Your task to perform on an android device: empty trash in the gmail app Image 0: 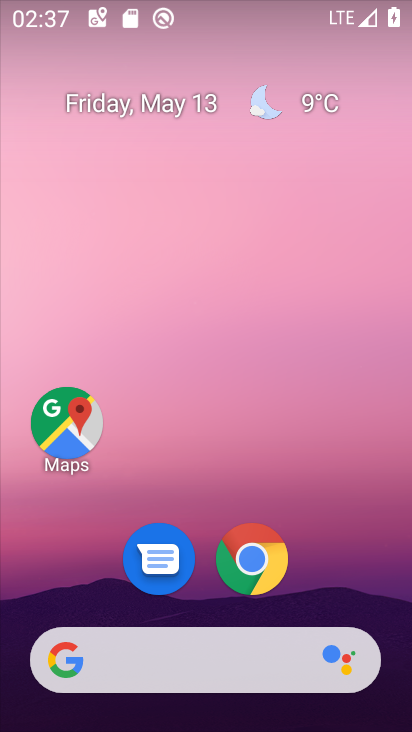
Step 0: drag from (404, 493) to (381, 260)
Your task to perform on an android device: empty trash in the gmail app Image 1: 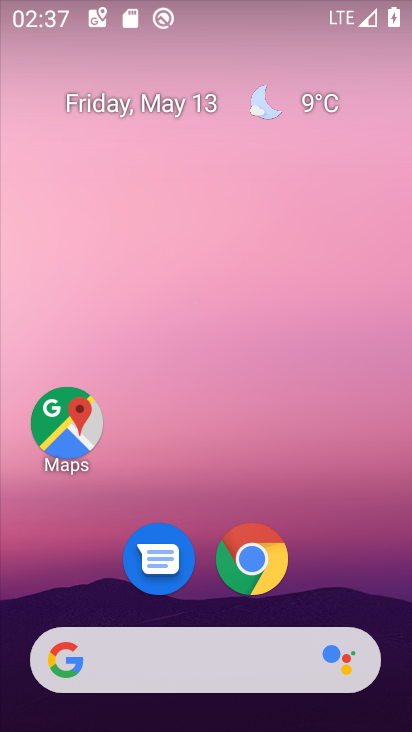
Step 1: drag from (396, 585) to (380, 150)
Your task to perform on an android device: empty trash in the gmail app Image 2: 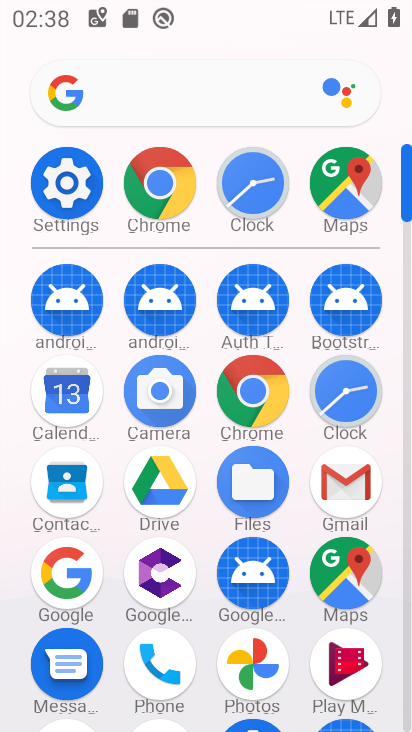
Step 2: click (342, 489)
Your task to perform on an android device: empty trash in the gmail app Image 3: 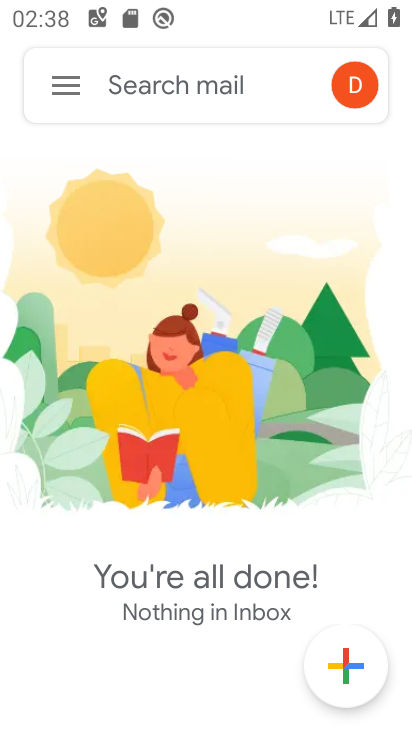
Step 3: click (71, 79)
Your task to perform on an android device: empty trash in the gmail app Image 4: 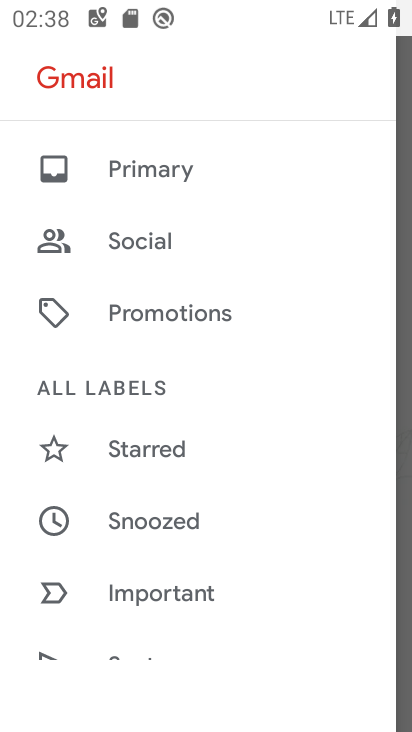
Step 4: drag from (285, 602) to (270, 324)
Your task to perform on an android device: empty trash in the gmail app Image 5: 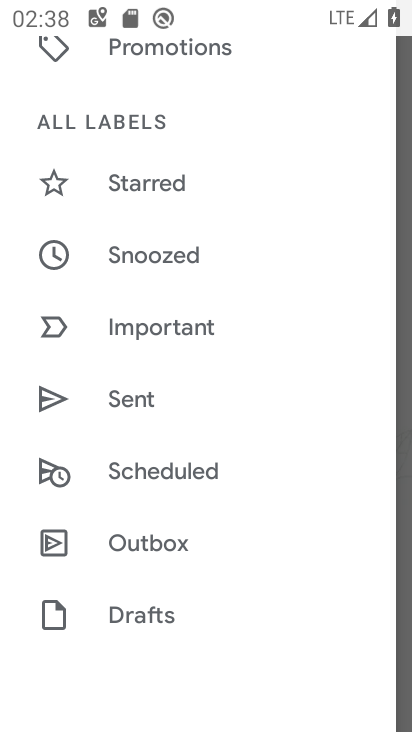
Step 5: drag from (229, 626) to (227, 413)
Your task to perform on an android device: empty trash in the gmail app Image 6: 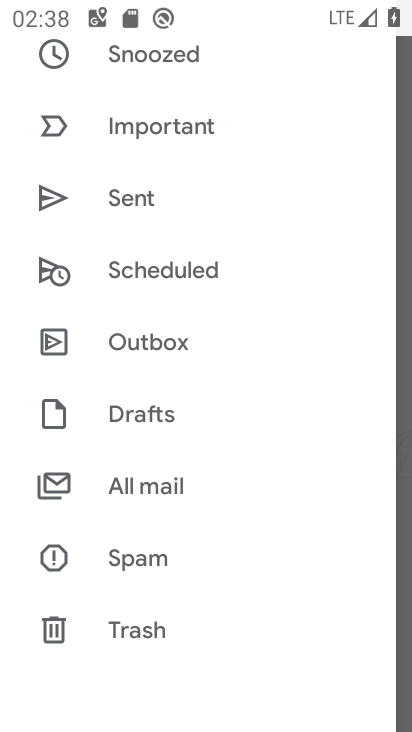
Step 6: click (143, 627)
Your task to perform on an android device: empty trash in the gmail app Image 7: 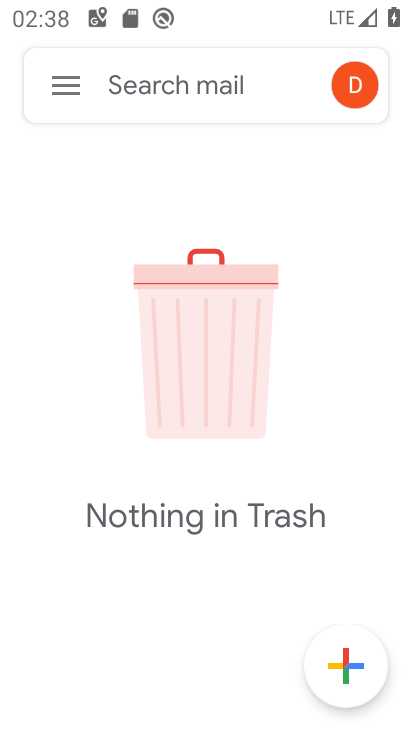
Step 7: task complete